Your task to perform on an android device: Open Yahoo.com Image 0: 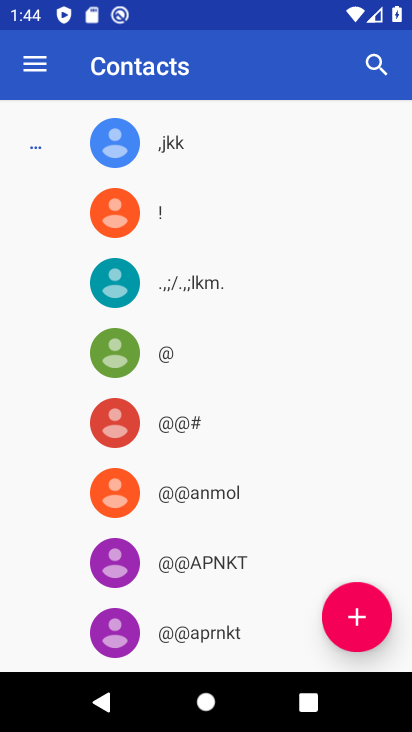
Step 0: press home button
Your task to perform on an android device: Open Yahoo.com Image 1: 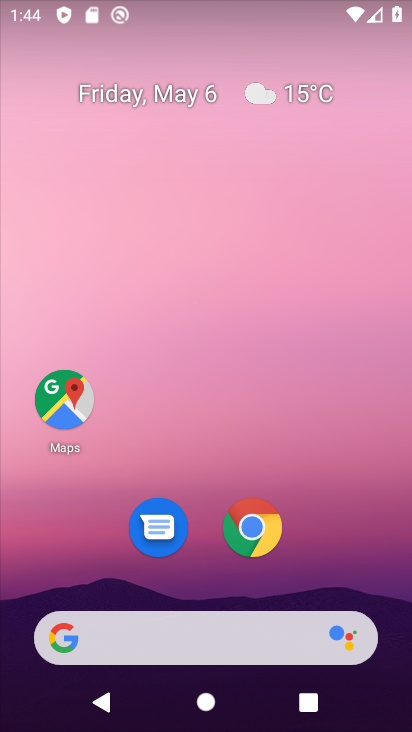
Step 1: click (255, 529)
Your task to perform on an android device: Open Yahoo.com Image 2: 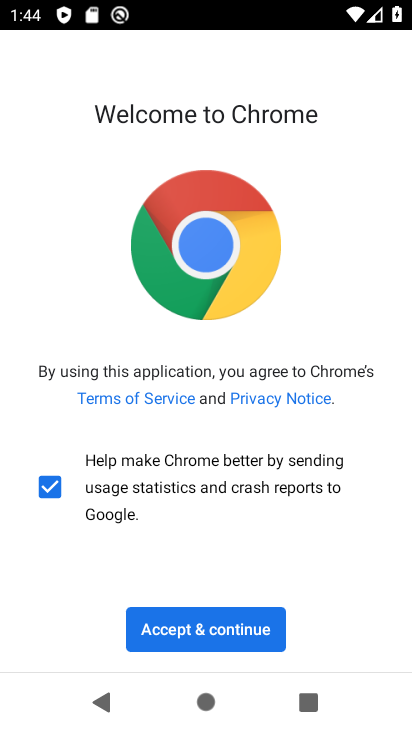
Step 2: click (163, 642)
Your task to perform on an android device: Open Yahoo.com Image 3: 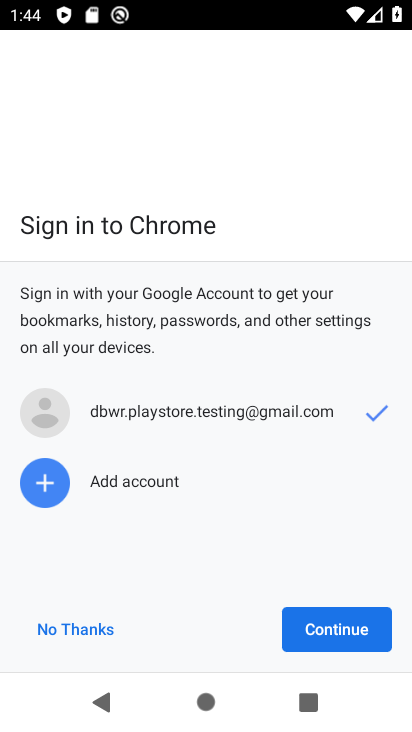
Step 3: click (312, 626)
Your task to perform on an android device: Open Yahoo.com Image 4: 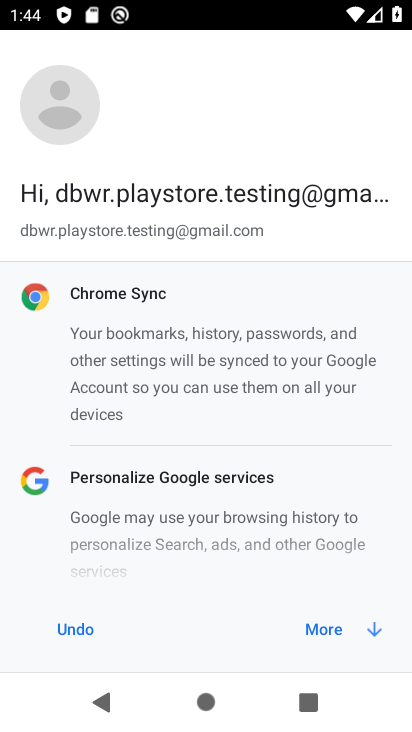
Step 4: click (312, 626)
Your task to perform on an android device: Open Yahoo.com Image 5: 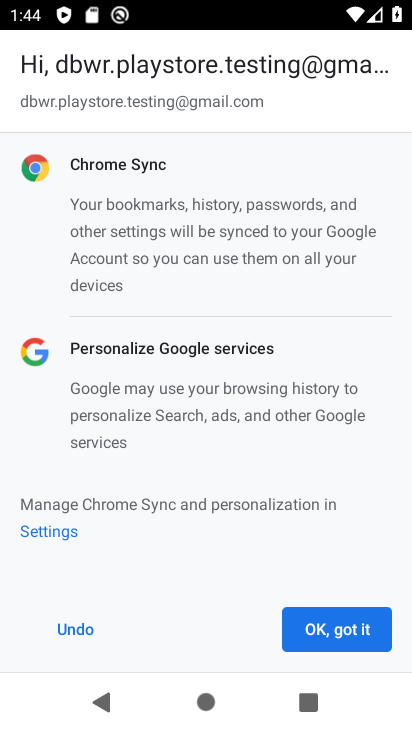
Step 5: click (312, 626)
Your task to perform on an android device: Open Yahoo.com Image 6: 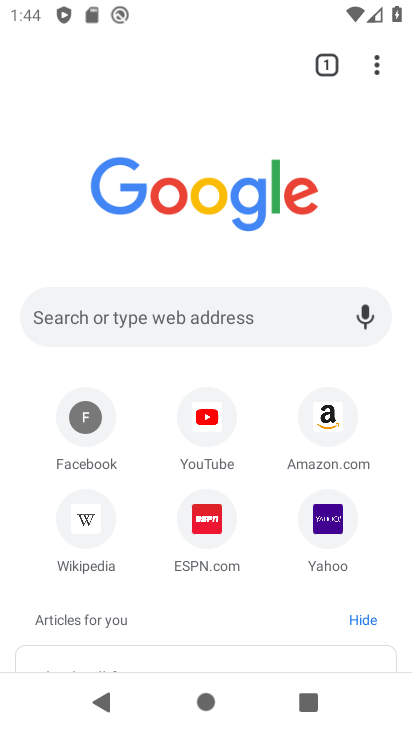
Step 6: click (330, 529)
Your task to perform on an android device: Open Yahoo.com Image 7: 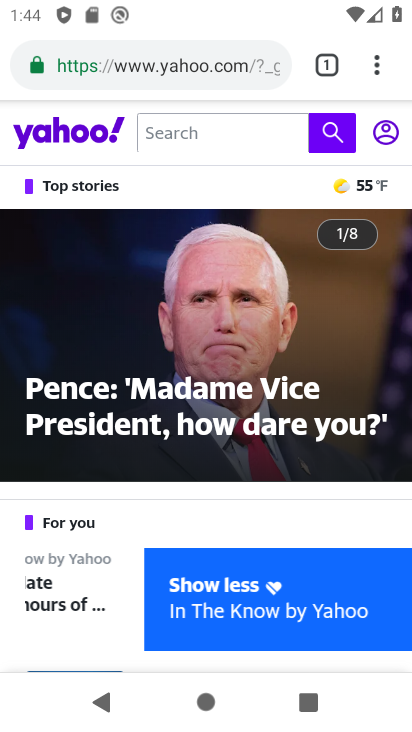
Step 7: task complete